Your task to perform on an android device: Toggle the flashlight Image 0: 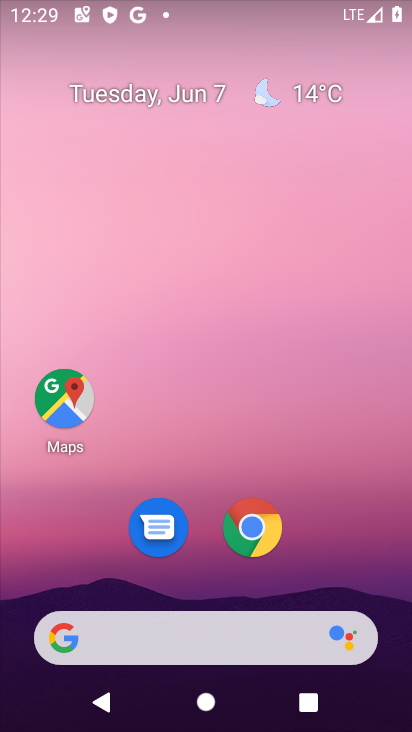
Step 0: press home button
Your task to perform on an android device: Toggle the flashlight Image 1: 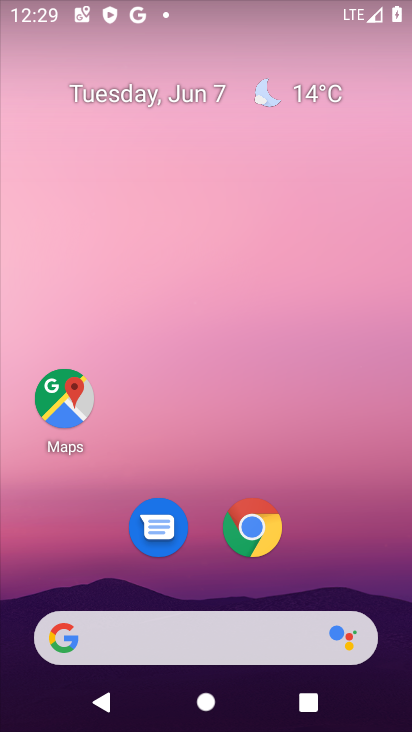
Step 1: drag from (300, 551) to (311, 3)
Your task to perform on an android device: Toggle the flashlight Image 2: 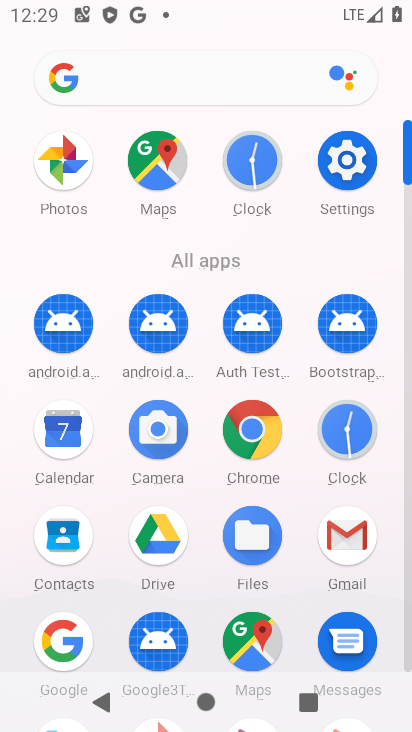
Step 2: click (347, 154)
Your task to perform on an android device: Toggle the flashlight Image 3: 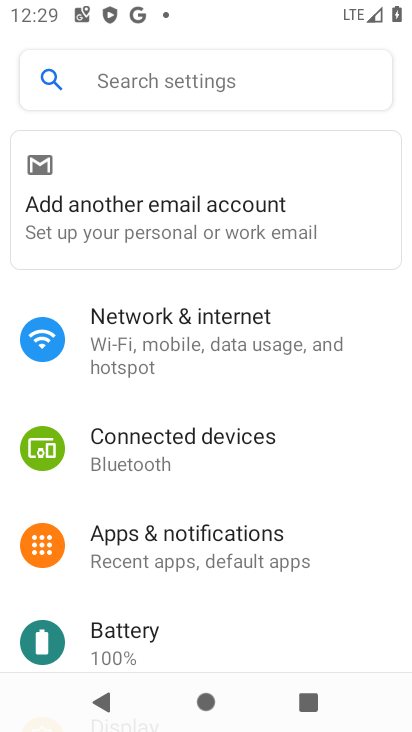
Step 3: click (168, 336)
Your task to perform on an android device: Toggle the flashlight Image 4: 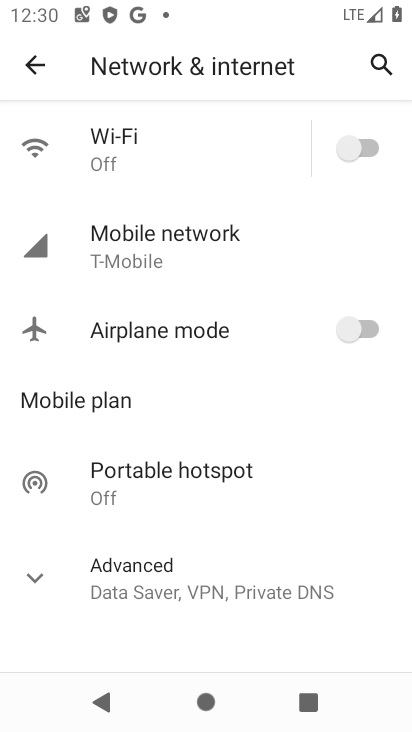
Step 4: click (37, 562)
Your task to perform on an android device: Toggle the flashlight Image 5: 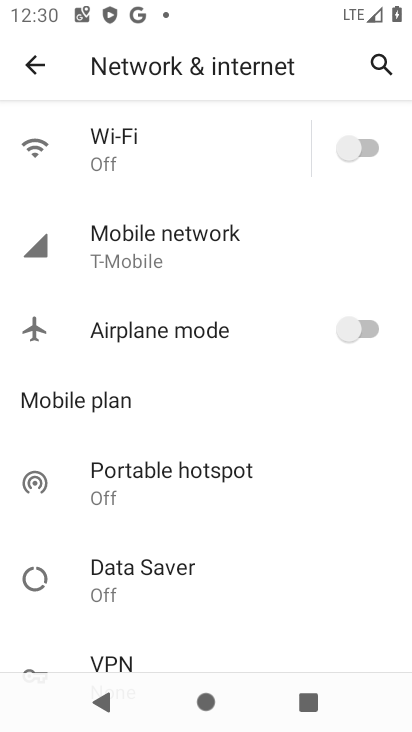
Step 5: task complete